Your task to perform on an android device: check google app version Image 0: 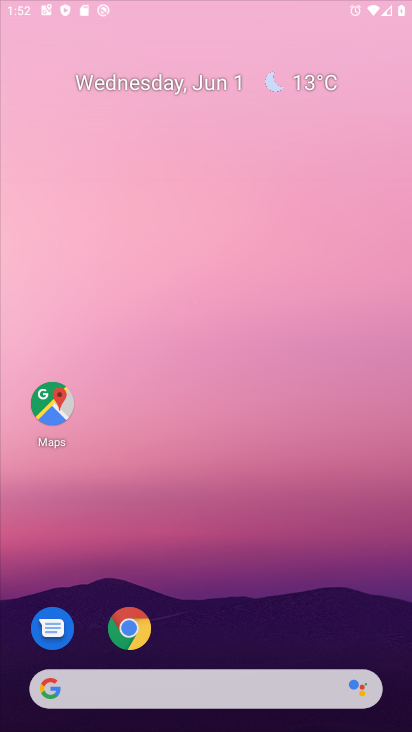
Step 0: press home button
Your task to perform on an android device: check google app version Image 1: 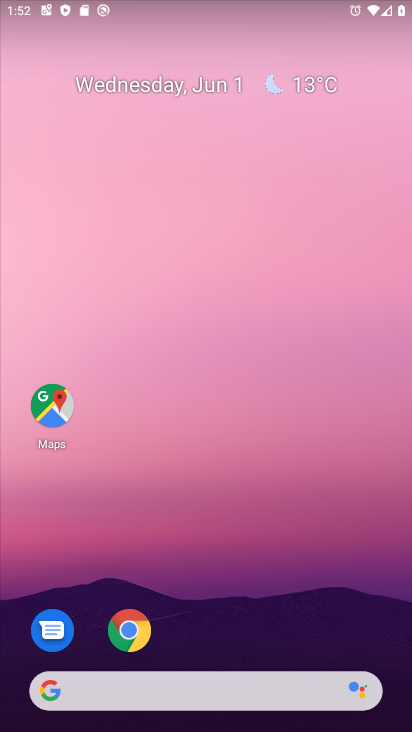
Step 1: drag from (214, 649) to (213, 102)
Your task to perform on an android device: check google app version Image 2: 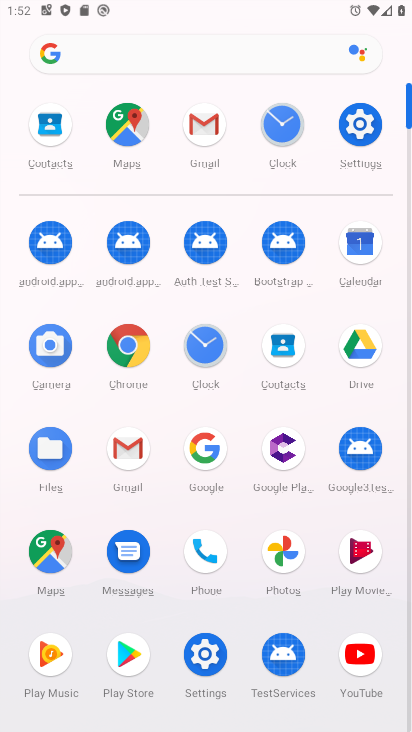
Step 2: click (202, 443)
Your task to perform on an android device: check google app version Image 3: 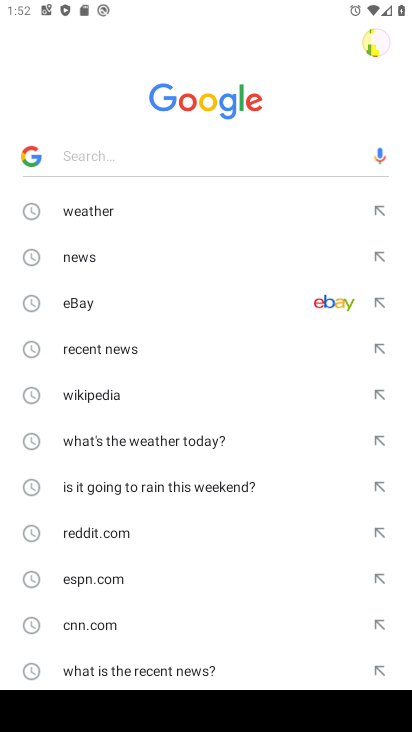
Step 3: press back button
Your task to perform on an android device: check google app version Image 4: 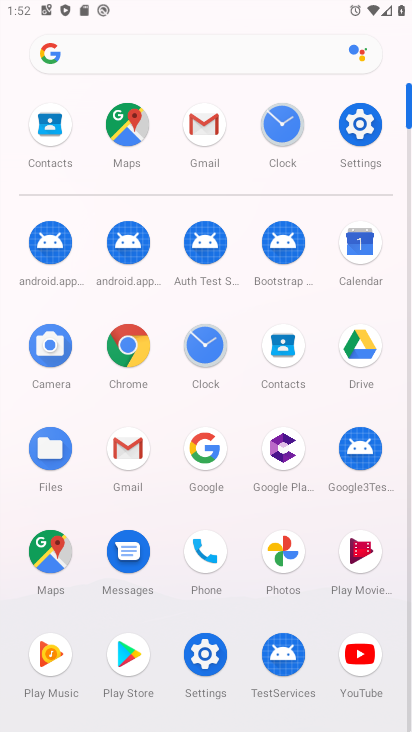
Step 4: click (201, 448)
Your task to perform on an android device: check google app version Image 5: 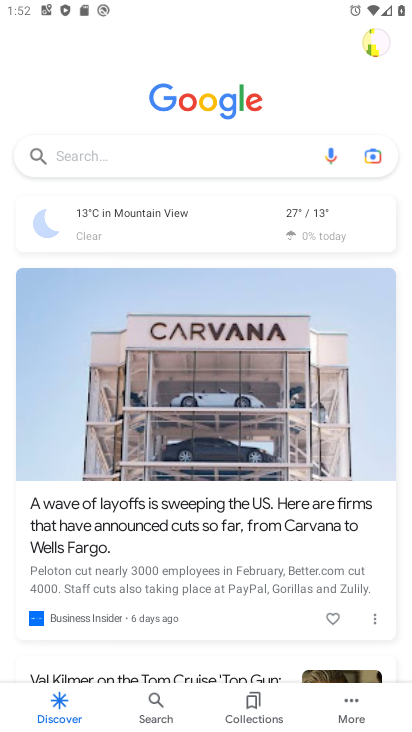
Step 5: click (343, 701)
Your task to perform on an android device: check google app version Image 6: 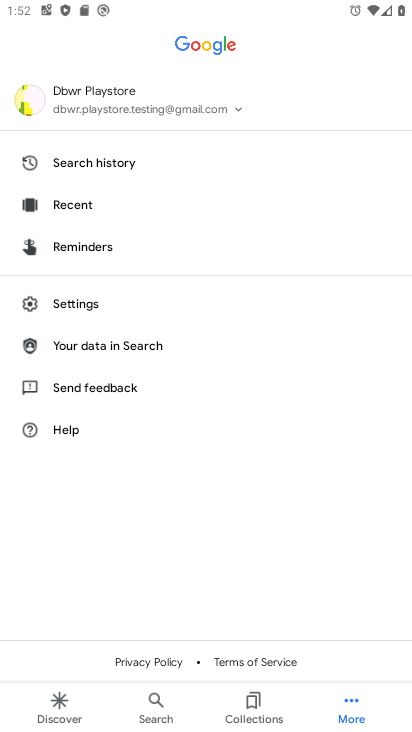
Step 6: click (107, 295)
Your task to perform on an android device: check google app version Image 7: 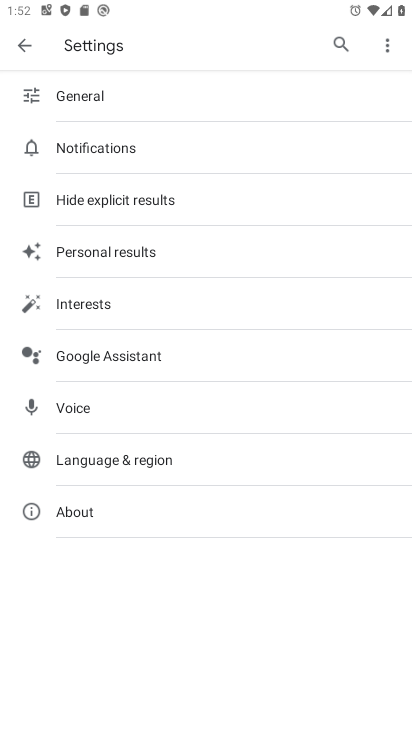
Step 7: click (99, 506)
Your task to perform on an android device: check google app version Image 8: 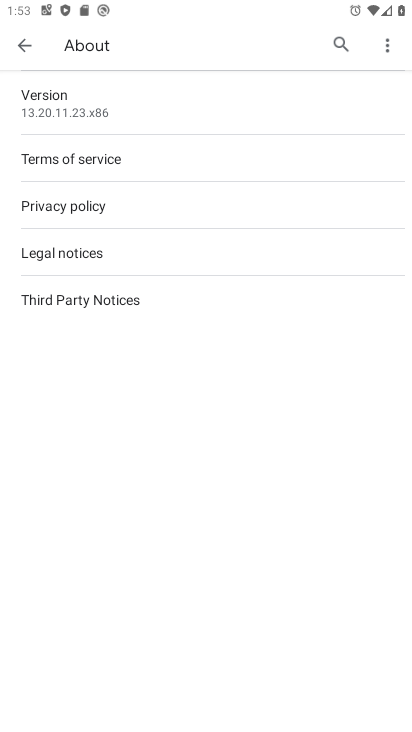
Step 8: task complete